Your task to perform on an android device: Go to settings Image 0: 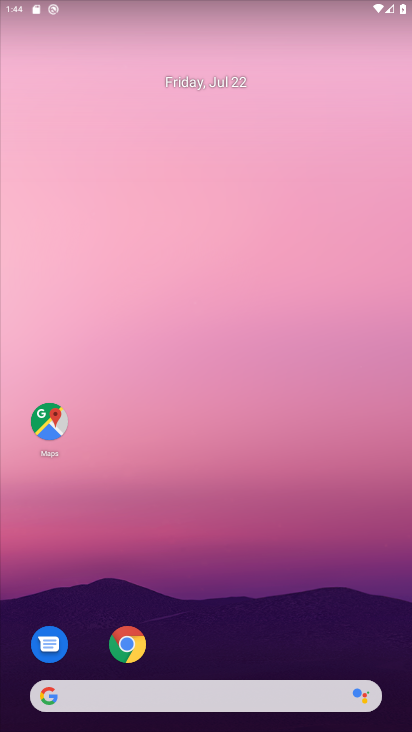
Step 0: drag from (226, 621) to (206, 8)
Your task to perform on an android device: Go to settings Image 1: 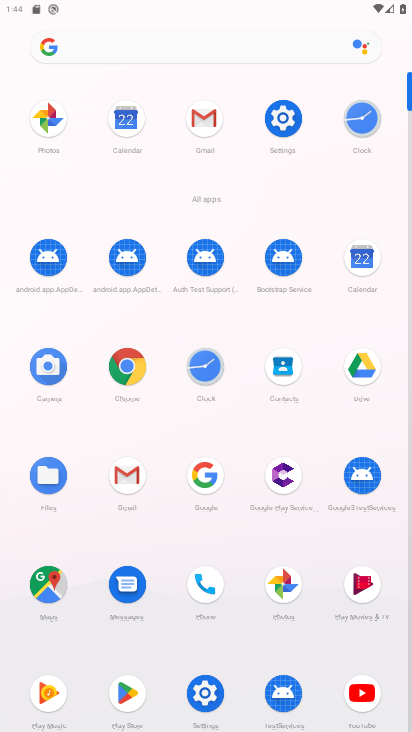
Step 1: click (277, 129)
Your task to perform on an android device: Go to settings Image 2: 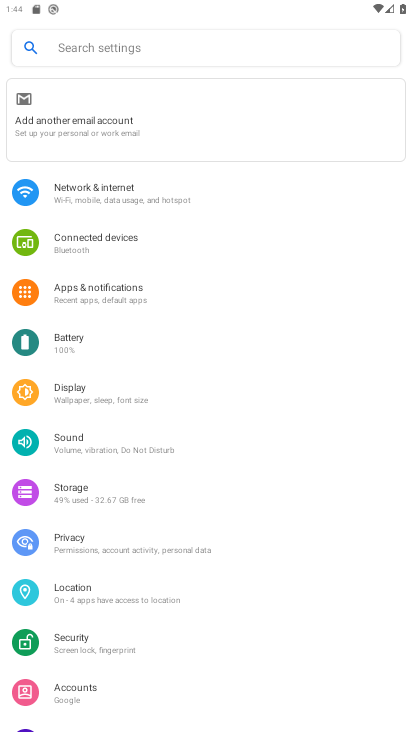
Step 2: task complete